Your task to perform on an android device: clear history in the chrome app Image 0: 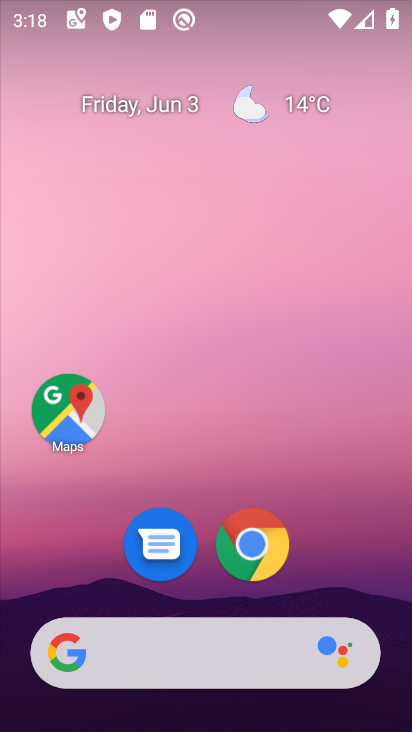
Step 0: click (257, 542)
Your task to perform on an android device: clear history in the chrome app Image 1: 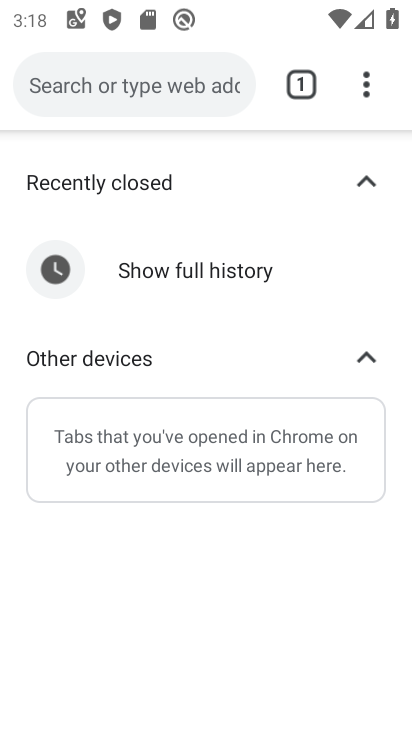
Step 1: click (364, 89)
Your task to perform on an android device: clear history in the chrome app Image 2: 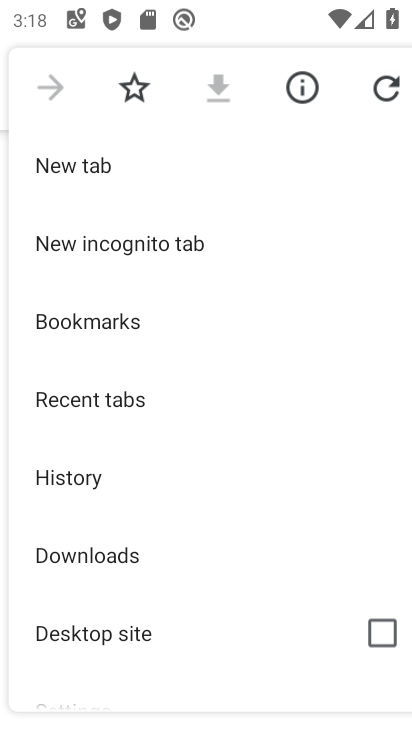
Step 2: click (93, 467)
Your task to perform on an android device: clear history in the chrome app Image 3: 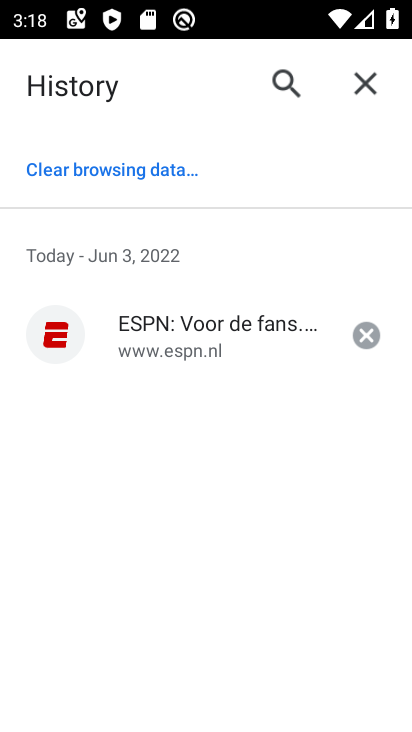
Step 3: click (108, 173)
Your task to perform on an android device: clear history in the chrome app Image 4: 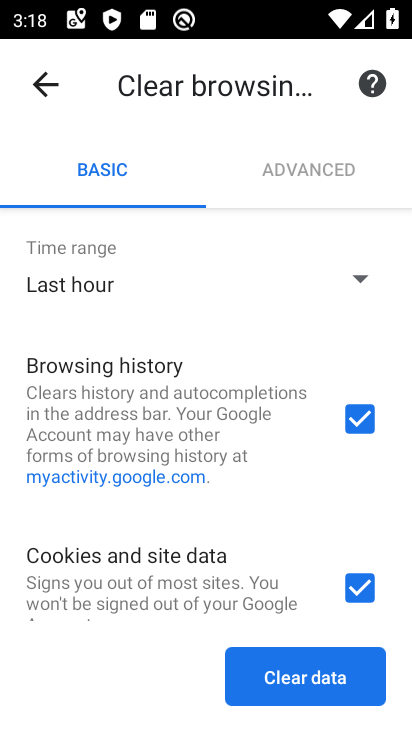
Step 4: click (355, 588)
Your task to perform on an android device: clear history in the chrome app Image 5: 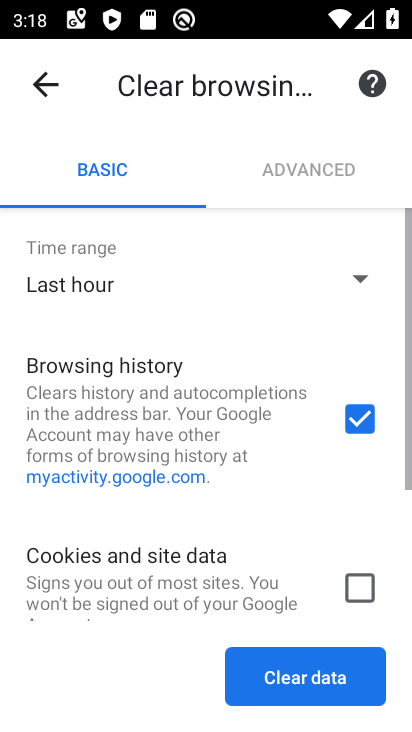
Step 5: drag from (298, 600) to (285, 209)
Your task to perform on an android device: clear history in the chrome app Image 6: 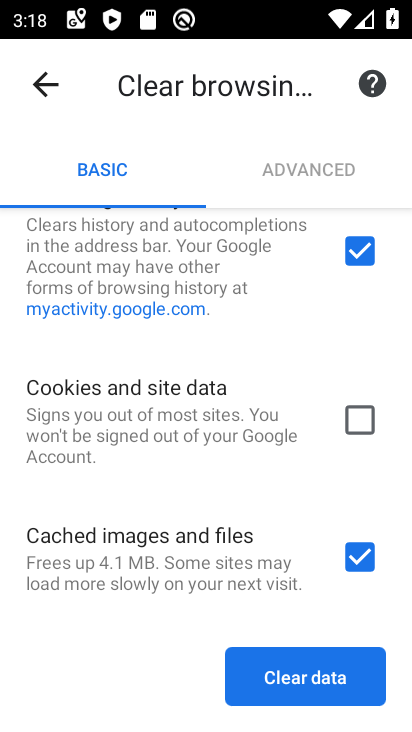
Step 6: click (362, 566)
Your task to perform on an android device: clear history in the chrome app Image 7: 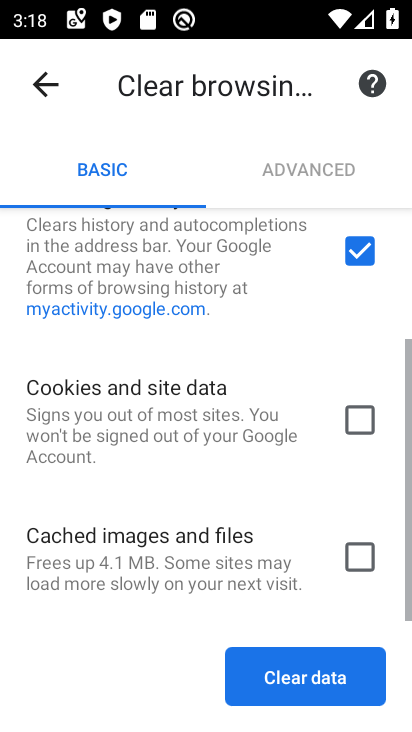
Step 7: click (308, 673)
Your task to perform on an android device: clear history in the chrome app Image 8: 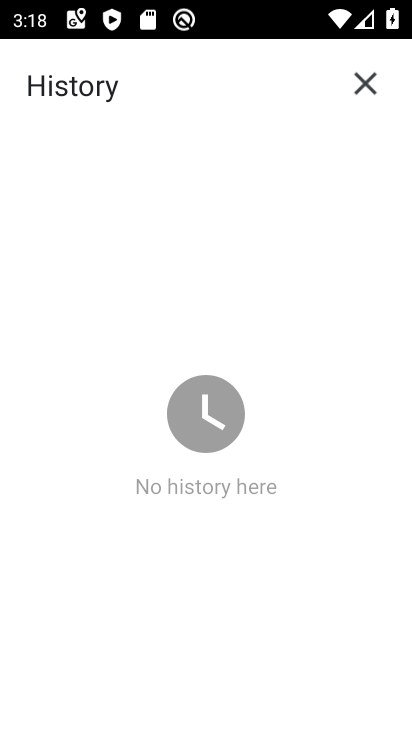
Step 8: task complete